Your task to perform on an android device: change the clock display to show seconds Image 0: 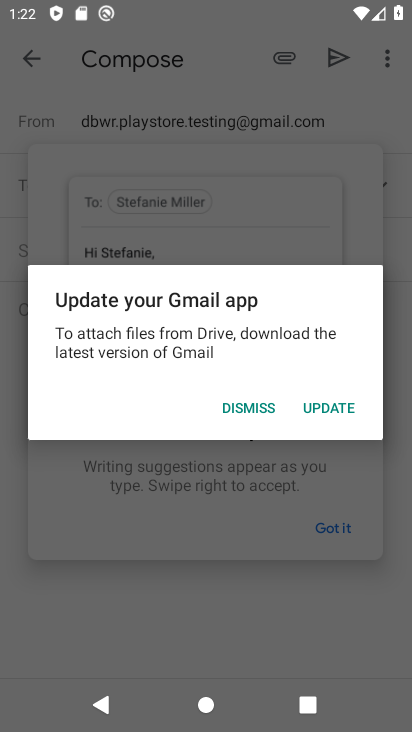
Step 0: press home button
Your task to perform on an android device: change the clock display to show seconds Image 1: 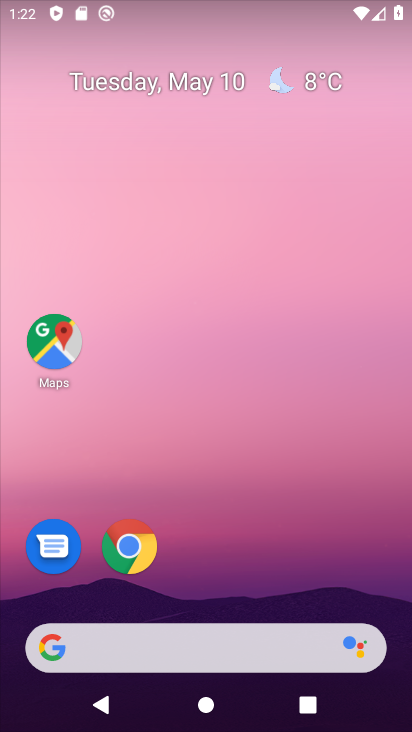
Step 1: drag from (397, 648) to (305, 151)
Your task to perform on an android device: change the clock display to show seconds Image 2: 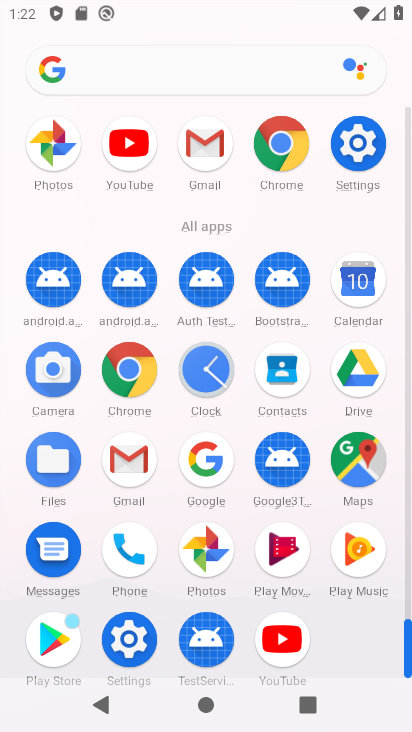
Step 2: click (205, 371)
Your task to perform on an android device: change the clock display to show seconds Image 3: 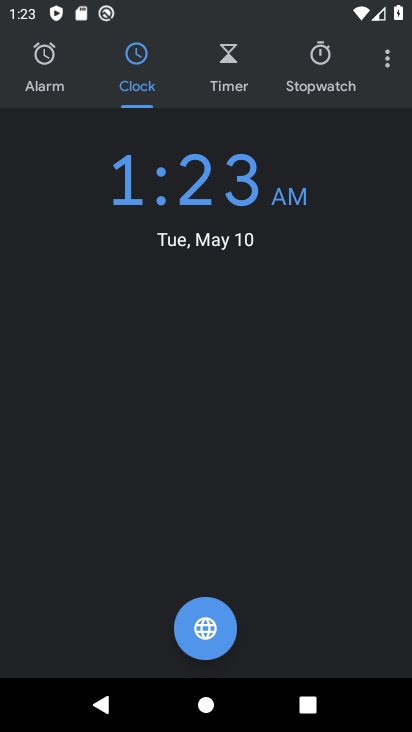
Step 3: click (389, 60)
Your task to perform on an android device: change the clock display to show seconds Image 4: 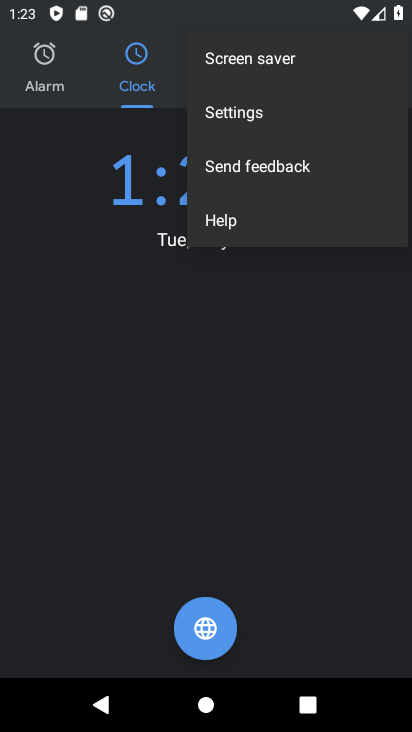
Step 4: click (213, 106)
Your task to perform on an android device: change the clock display to show seconds Image 5: 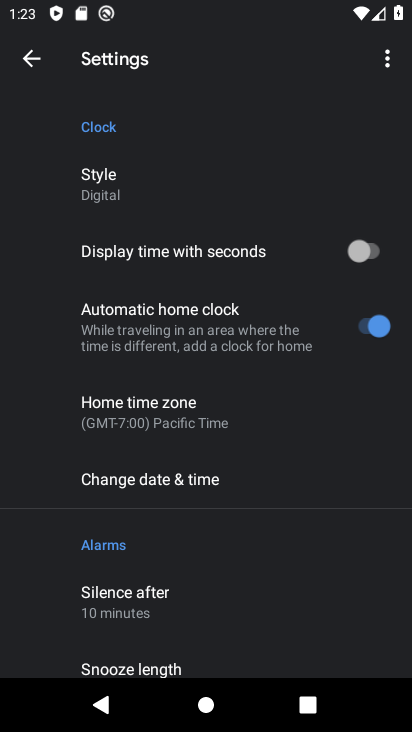
Step 5: click (365, 250)
Your task to perform on an android device: change the clock display to show seconds Image 6: 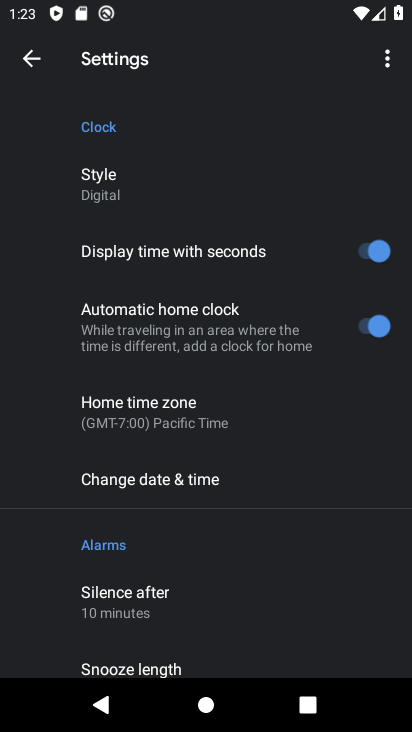
Step 6: task complete